Your task to perform on an android device: open chrome and create a bookmark for the current page Image 0: 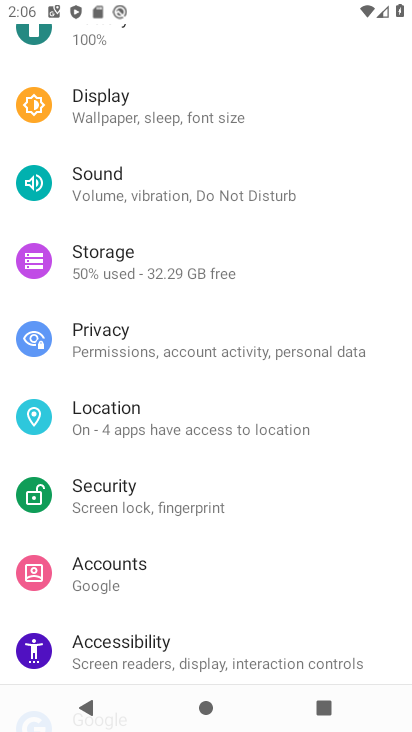
Step 0: press home button
Your task to perform on an android device: open chrome and create a bookmark for the current page Image 1: 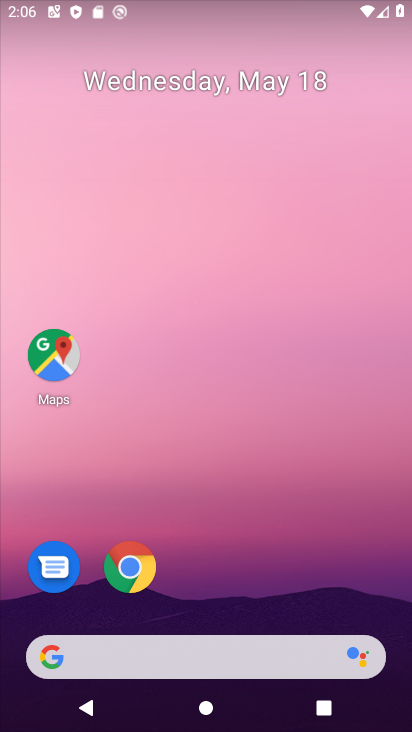
Step 1: click (130, 564)
Your task to perform on an android device: open chrome and create a bookmark for the current page Image 2: 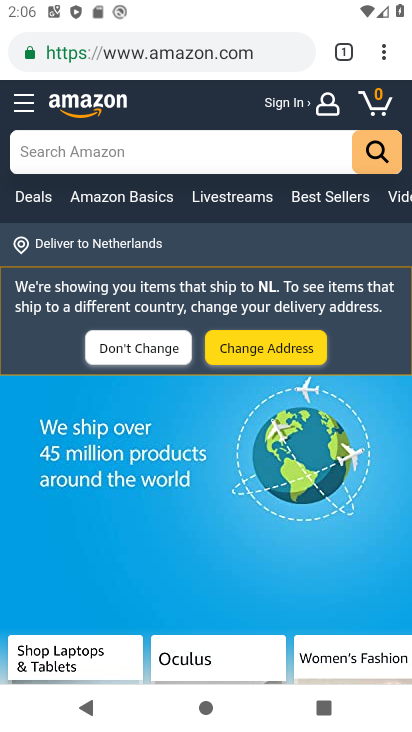
Step 2: task complete